Your task to perform on an android device: Go to notification settings Image 0: 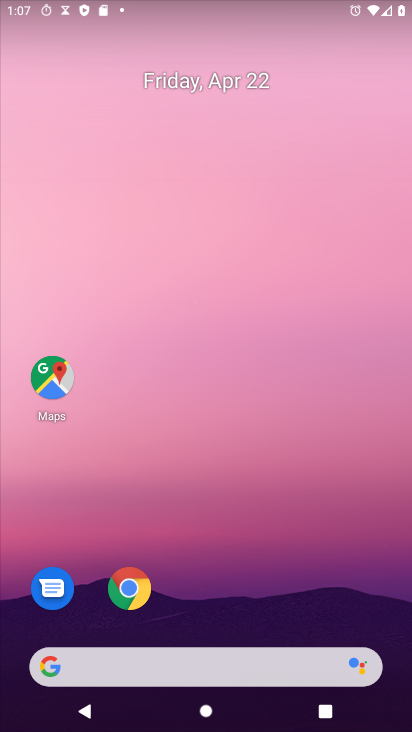
Step 0: drag from (220, 682) to (351, 116)
Your task to perform on an android device: Go to notification settings Image 1: 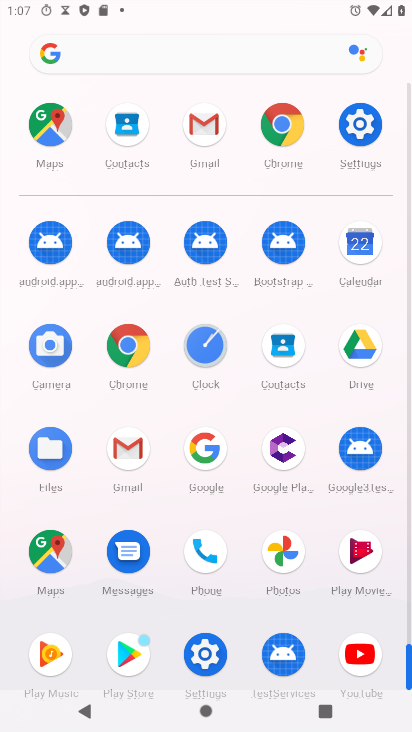
Step 1: click (357, 116)
Your task to perform on an android device: Go to notification settings Image 2: 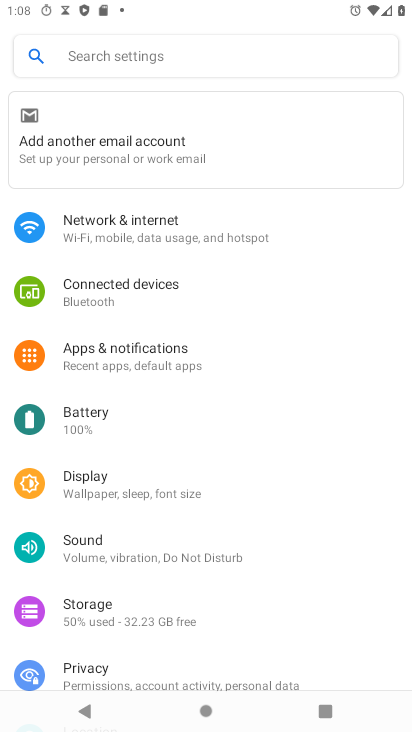
Step 2: click (233, 60)
Your task to perform on an android device: Go to notification settings Image 3: 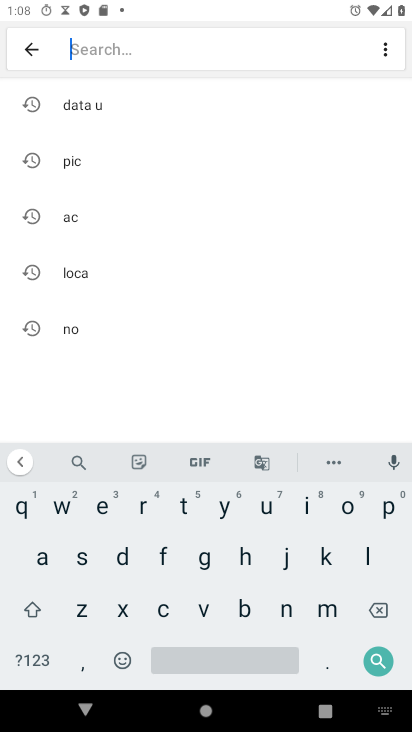
Step 3: click (283, 618)
Your task to perform on an android device: Go to notification settings Image 4: 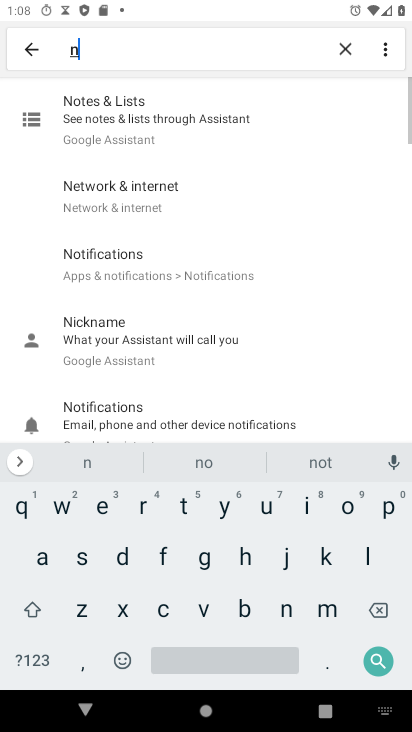
Step 4: click (340, 509)
Your task to perform on an android device: Go to notification settings Image 5: 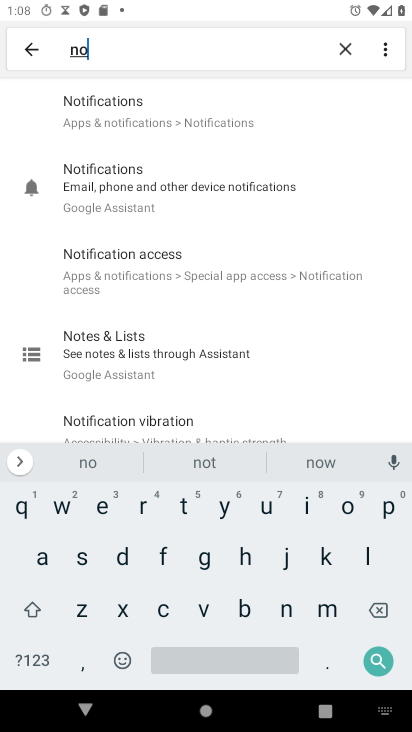
Step 5: click (183, 509)
Your task to perform on an android device: Go to notification settings Image 6: 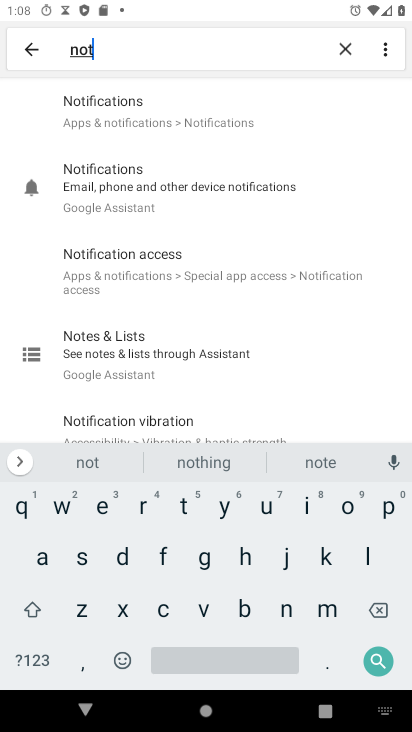
Step 6: click (146, 120)
Your task to perform on an android device: Go to notification settings Image 7: 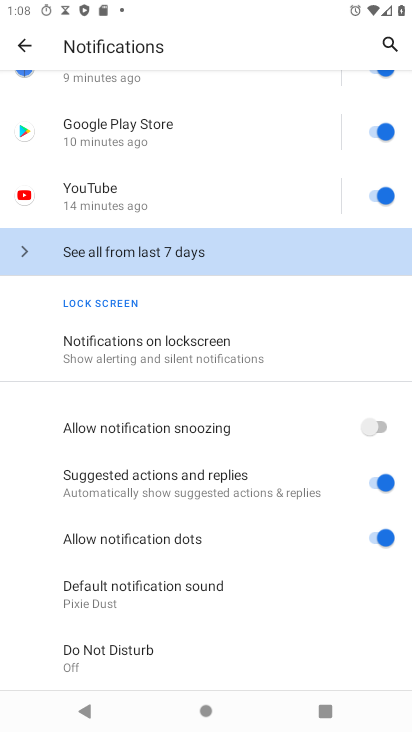
Step 7: click (125, 343)
Your task to perform on an android device: Go to notification settings Image 8: 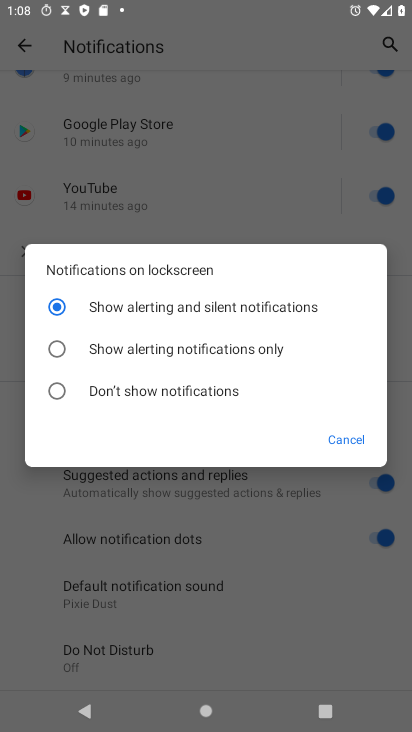
Step 8: task complete